Your task to perform on an android device: Open calendar and show me the first week of next month Image 0: 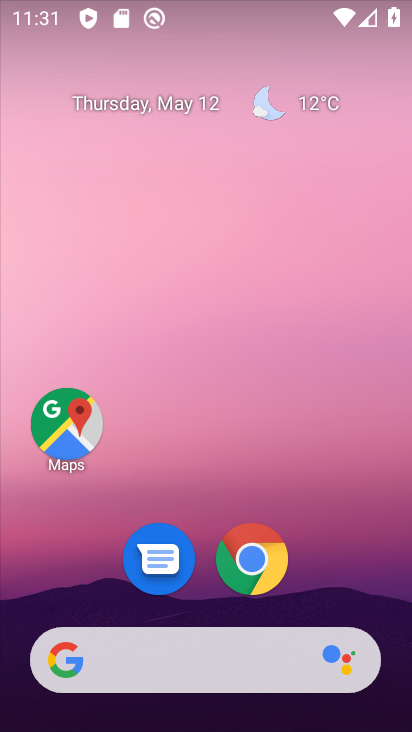
Step 0: drag from (61, 624) to (218, 178)
Your task to perform on an android device: Open calendar and show me the first week of next month Image 1: 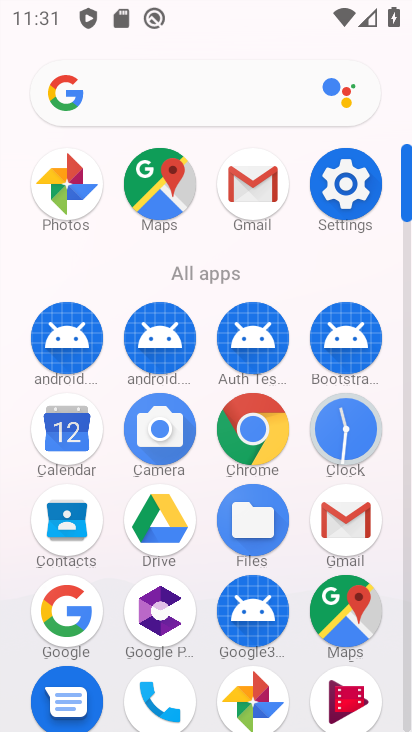
Step 1: click (92, 435)
Your task to perform on an android device: Open calendar and show me the first week of next month Image 2: 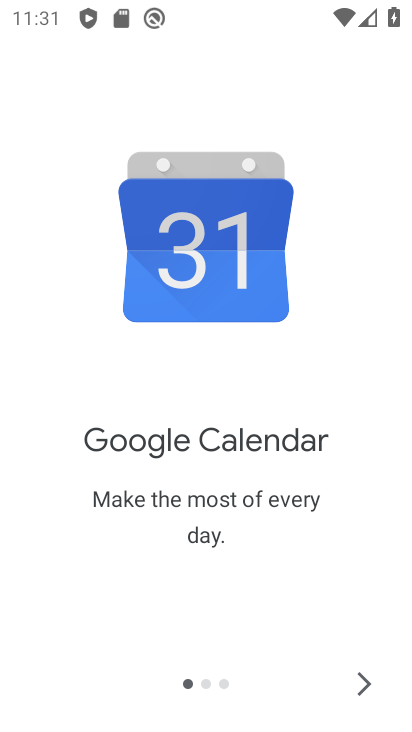
Step 2: click (373, 685)
Your task to perform on an android device: Open calendar and show me the first week of next month Image 3: 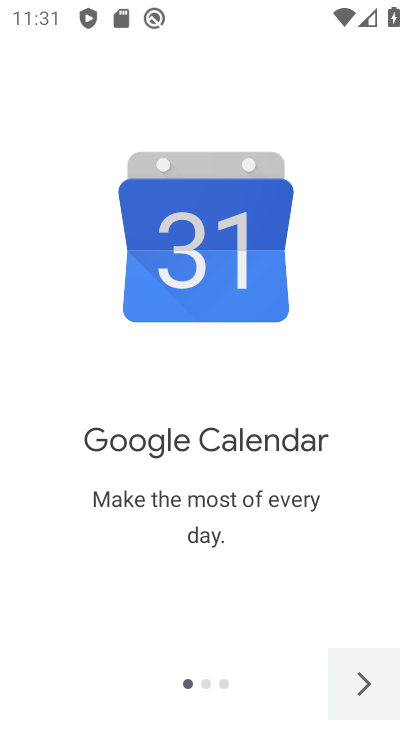
Step 3: click (373, 685)
Your task to perform on an android device: Open calendar and show me the first week of next month Image 4: 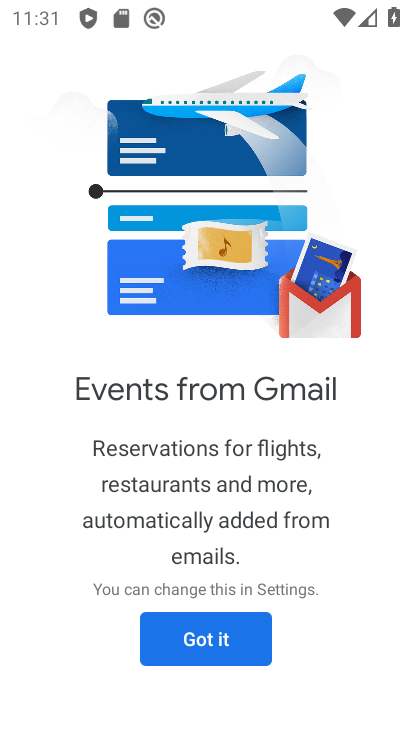
Step 4: click (246, 641)
Your task to perform on an android device: Open calendar and show me the first week of next month Image 5: 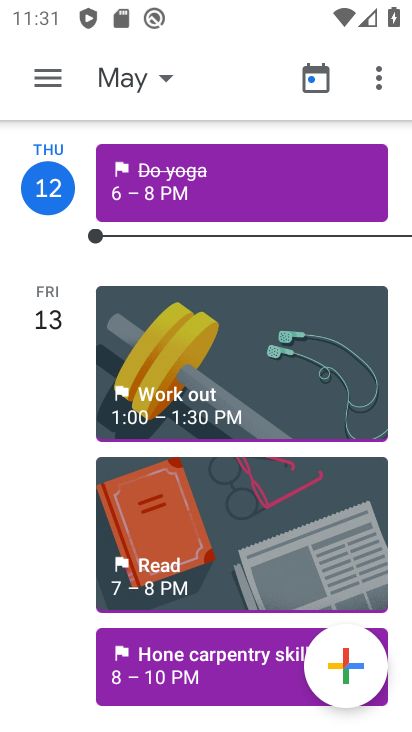
Step 5: click (121, 81)
Your task to perform on an android device: Open calendar and show me the first week of next month Image 6: 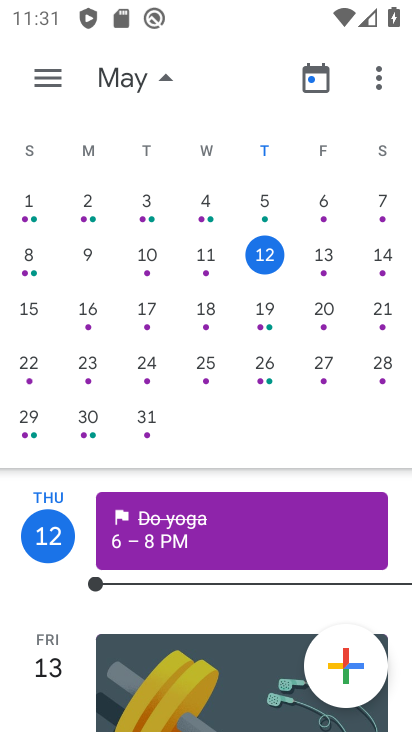
Step 6: drag from (376, 413) to (0, 383)
Your task to perform on an android device: Open calendar and show me the first week of next month Image 7: 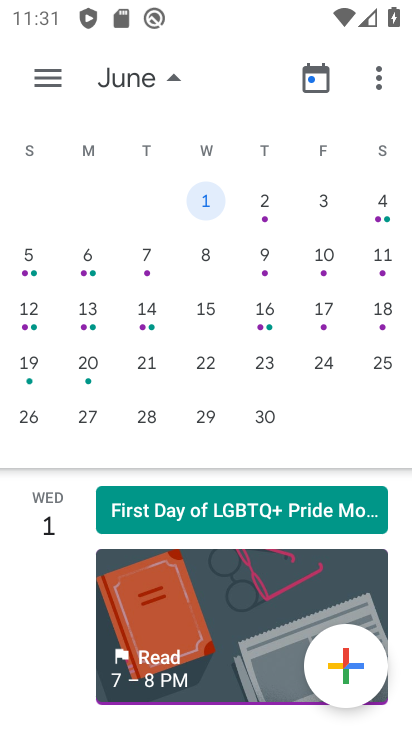
Step 7: click (36, 253)
Your task to perform on an android device: Open calendar and show me the first week of next month Image 8: 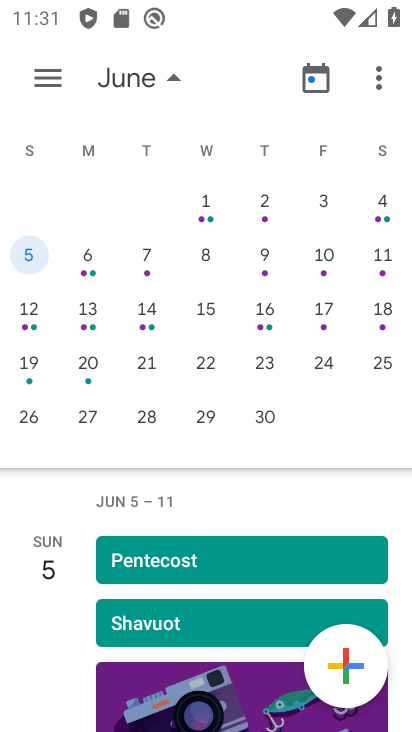
Step 8: click (50, 67)
Your task to perform on an android device: Open calendar and show me the first week of next month Image 9: 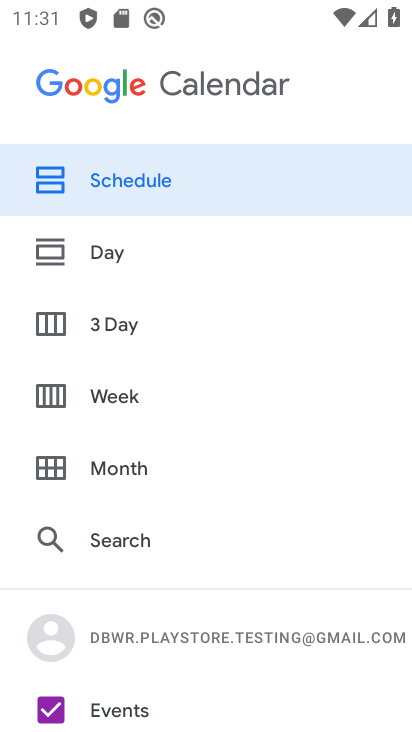
Step 9: click (121, 390)
Your task to perform on an android device: Open calendar and show me the first week of next month Image 10: 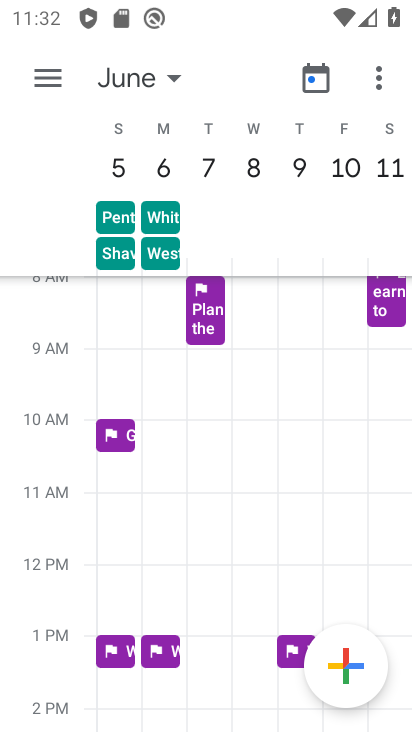
Step 10: task complete